Your task to perform on an android device: turn on the 12-hour format for clock Image 0: 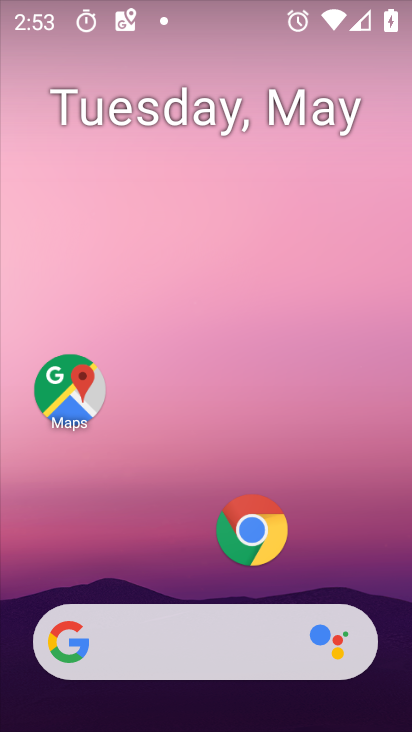
Step 0: drag from (236, 579) to (258, 9)
Your task to perform on an android device: turn on the 12-hour format for clock Image 1: 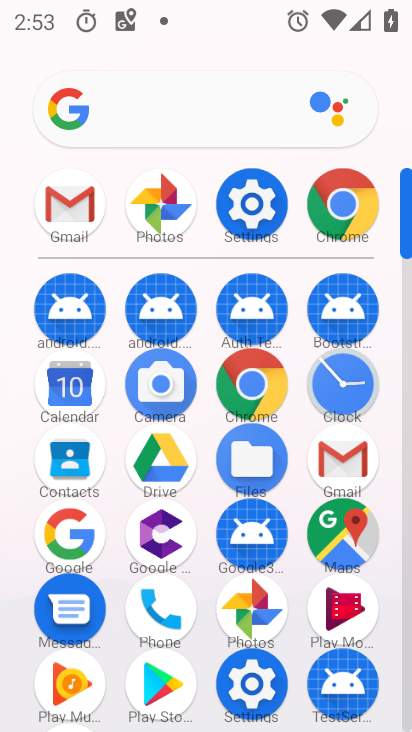
Step 1: click (331, 407)
Your task to perform on an android device: turn on the 12-hour format for clock Image 2: 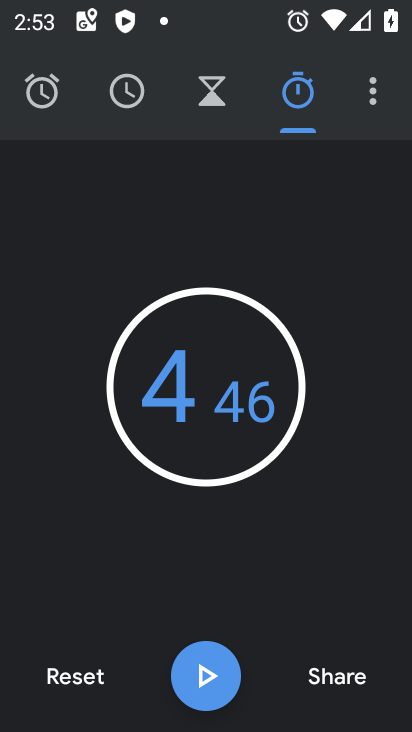
Step 2: click (384, 92)
Your task to perform on an android device: turn on the 12-hour format for clock Image 3: 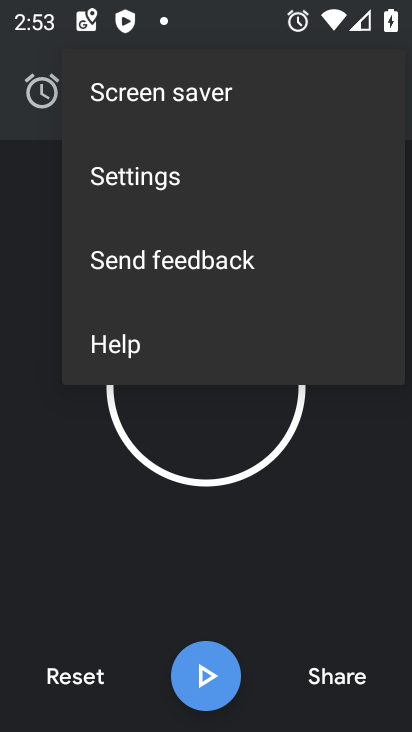
Step 3: click (117, 180)
Your task to perform on an android device: turn on the 12-hour format for clock Image 4: 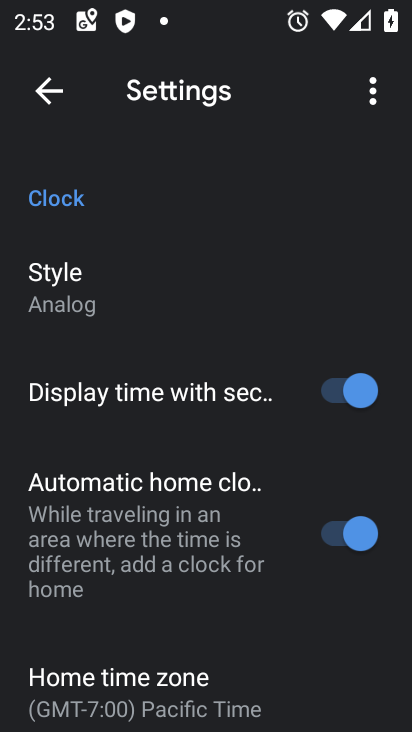
Step 4: drag from (181, 575) to (130, 299)
Your task to perform on an android device: turn on the 12-hour format for clock Image 5: 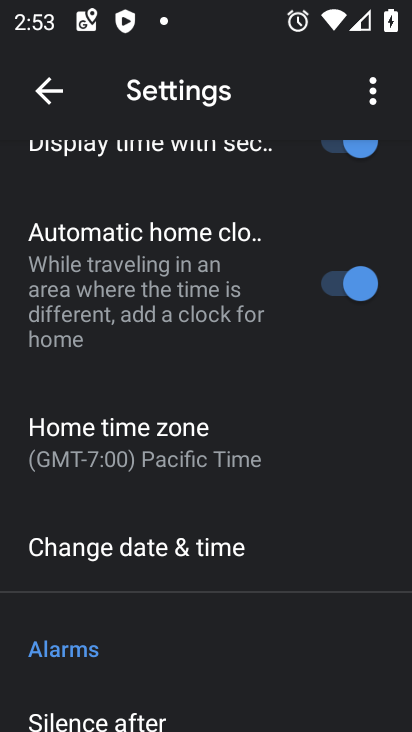
Step 5: click (156, 560)
Your task to perform on an android device: turn on the 12-hour format for clock Image 6: 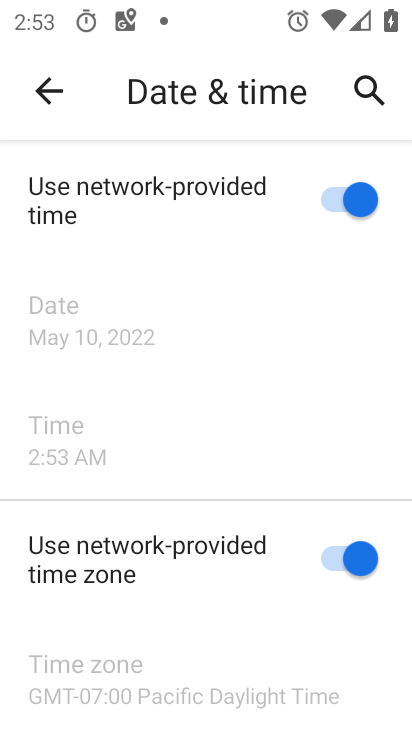
Step 6: task complete